Your task to perform on an android device: search for starred emails in the gmail app Image 0: 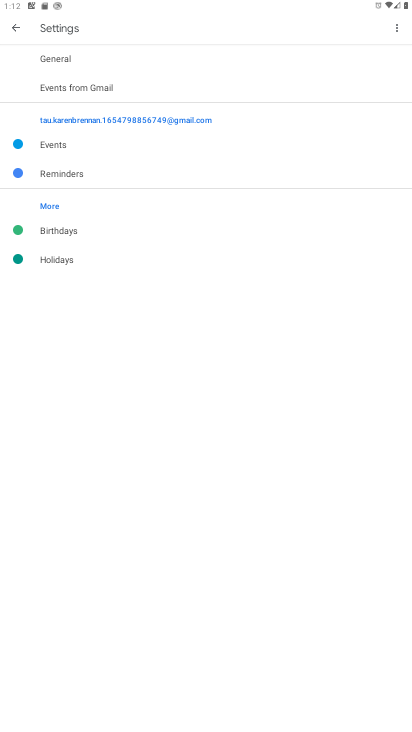
Step 0: press home button
Your task to perform on an android device: search for starred emails in the gmail app Image 1: 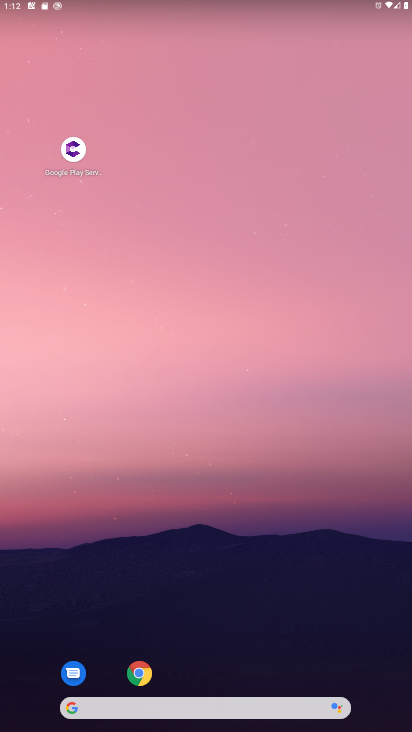
Step 1: drag from (192, 642) to (182, 171)
Your task to perform on an android device: search for starred emails in the gmail app Image 2: 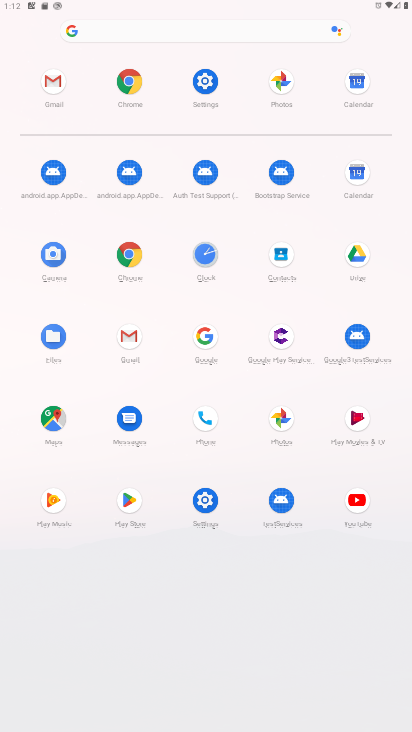
Step 2: click (137, 340)
Your task to perform on an android device: search for starred emails in the gmail app Image 3: 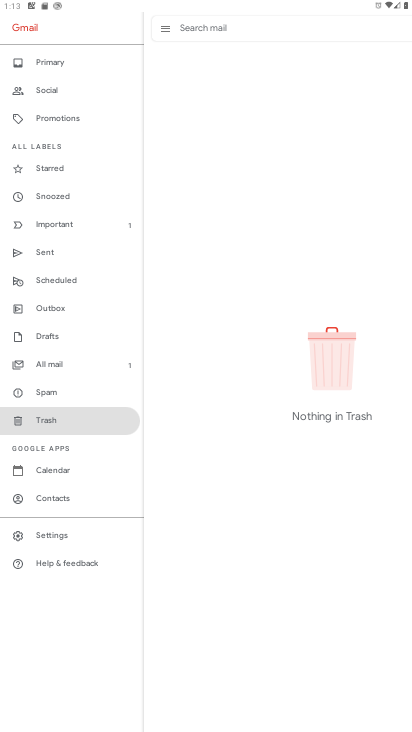
Step 3: click (62, 168)
Your task to perform on an android device: search for starred emails in the gmail app Image 4: 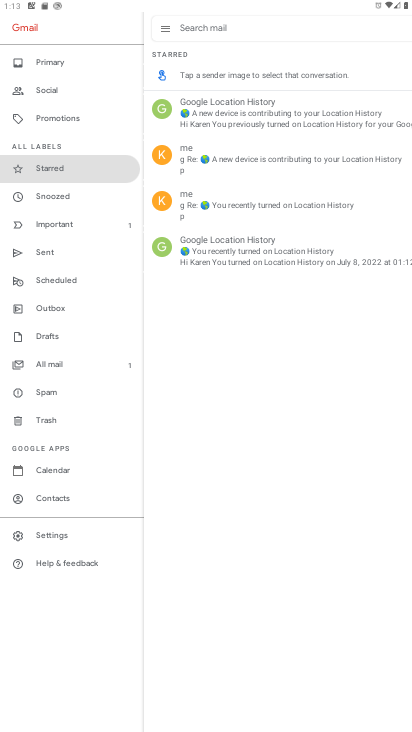
Step 4: task complete